Your task to perform on an android device: uninstall "The Home Depot" Image 0: 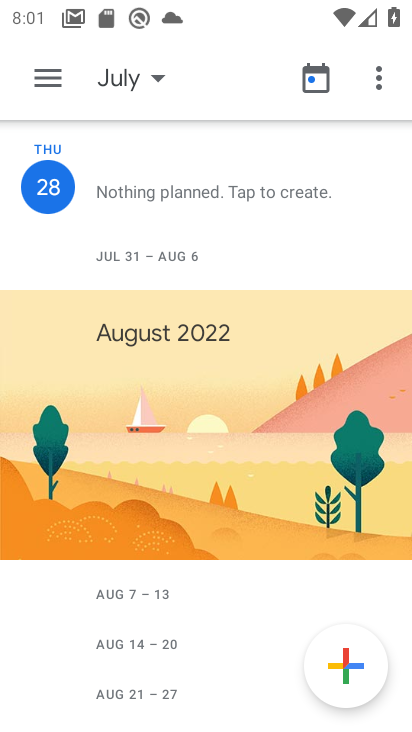
Step 0: press home button
Your task to perform on an android device: uninstall "The Home Depot" Image 1: 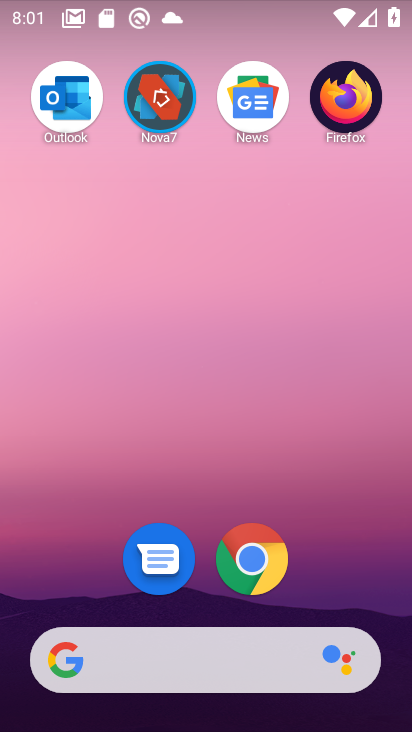
Step 1: drag from (188, 579) to (197, 117)
Your task to perform on an android device: uninstall "The Home Depot" Image 2: 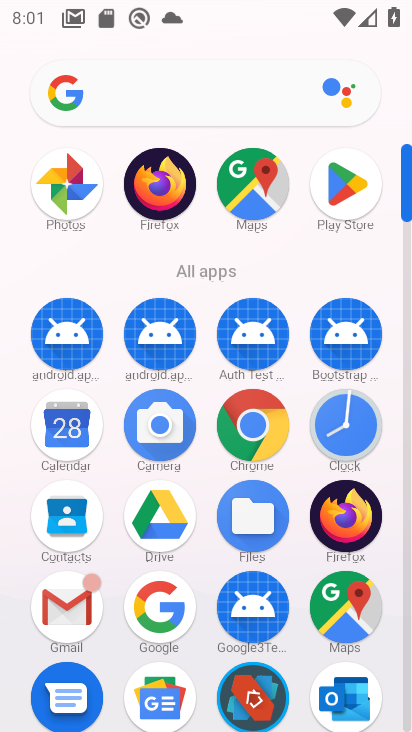
Step 2: click (347, 204)
Your task to perform on an android device: uninstall "The Home Depot" Image 3: 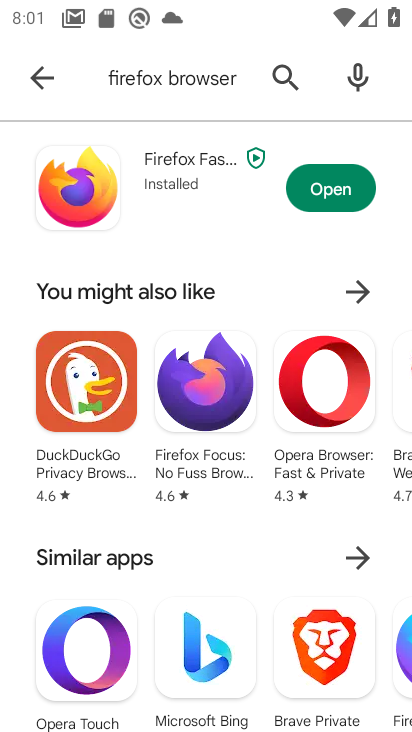
Step 3: click (189, 73)
Your task to perform on an android device: uninstall "The Home Depot" Image 4: 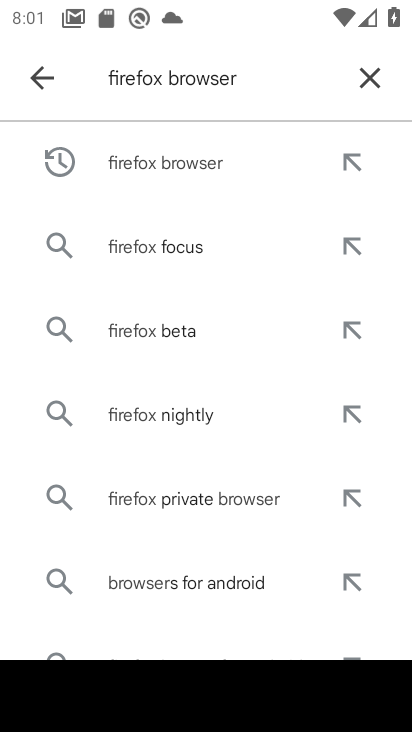
Step 4: click (35, 74)
Your task to perform on an android device: uninstall "The Home Depot" Image 5: 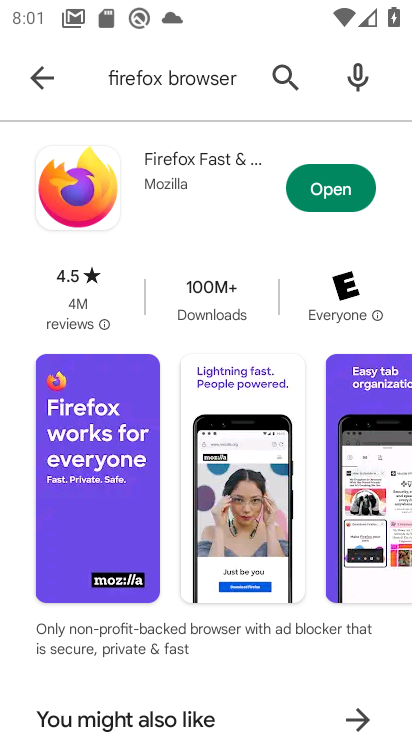
Step 5: type "homw"
Your task to perform on an android device: uninstall "The Home Depot" Image 6: 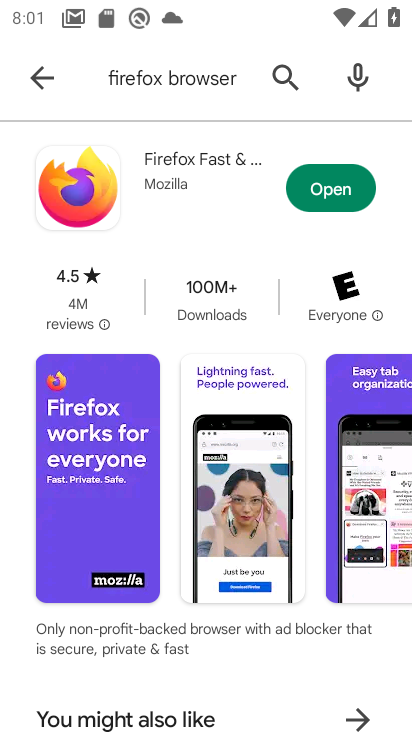
Step 6: click (209, 98)
Your task to perform on an android device: uninstall "The Home Depot" Image 7: 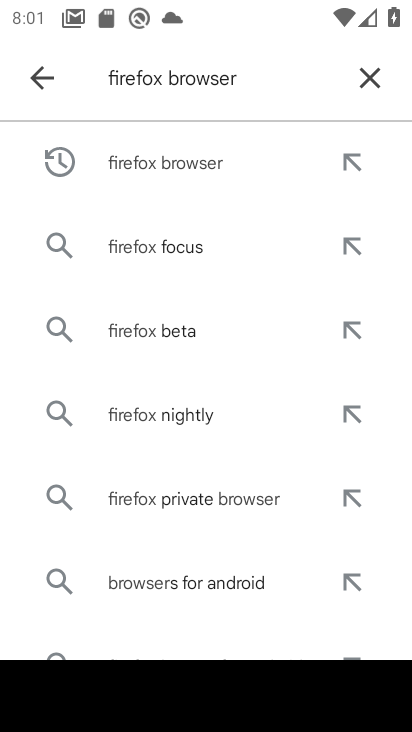
Step 7: click (375, 72)
Your task to perform on an android device: uninstall "The Home Depot" Image 8: 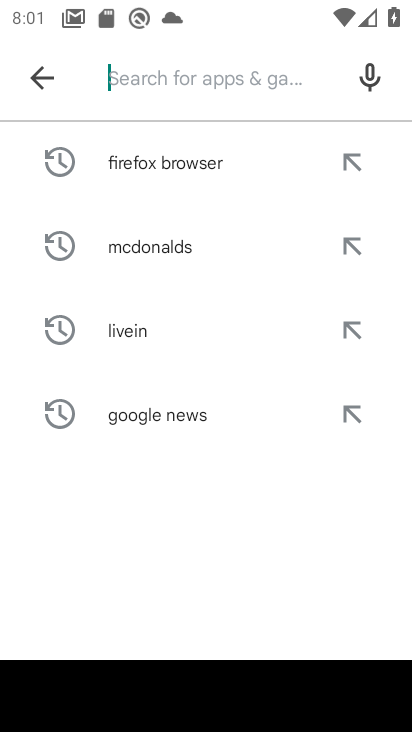
Step 8: type "home depot"
Your task to perform on an android device: uninstall "The Home Depot" Image 9: 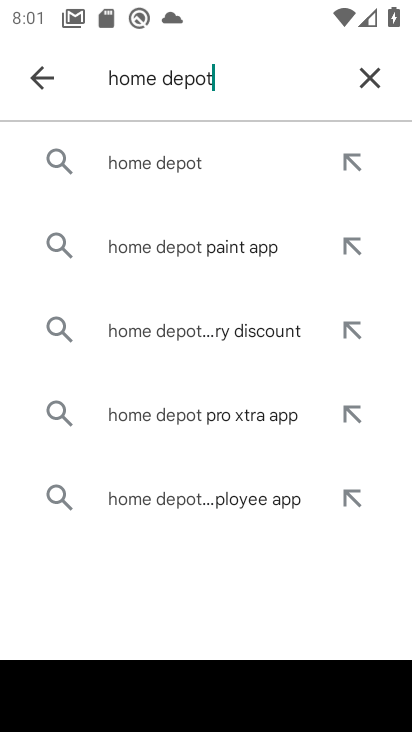
Step 9: click (165, 159)
Your task to perform on an android device: uninstall "The Home Depot" Image 10: 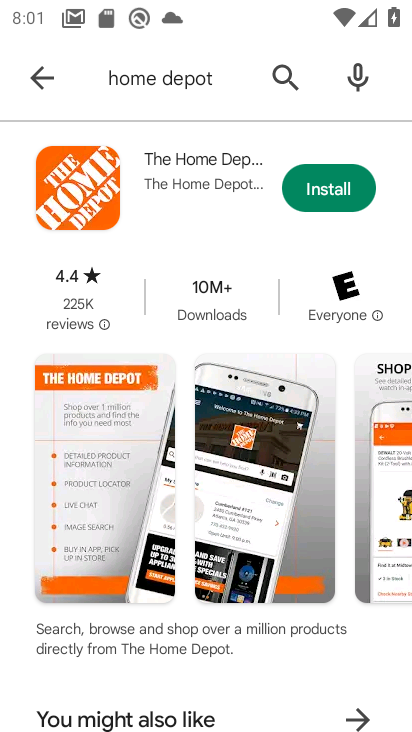
Step 10: task complete